Your task to perform on an android device: Open Android settings Image 0: 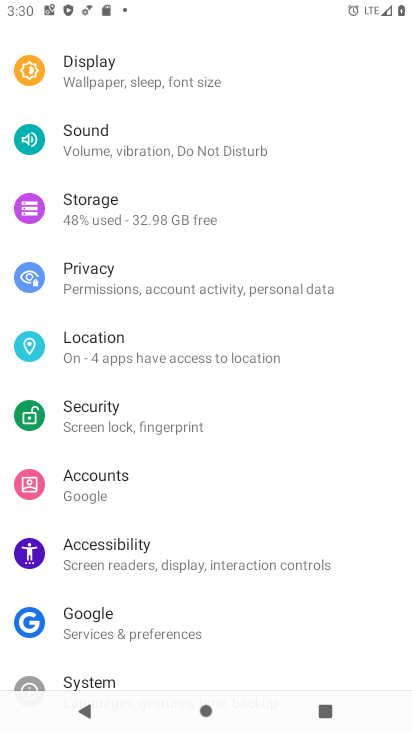
Step 0: drag from (142, 650) to (249, 2)
Your task to perform on an android device: Open Android settings Image 1: 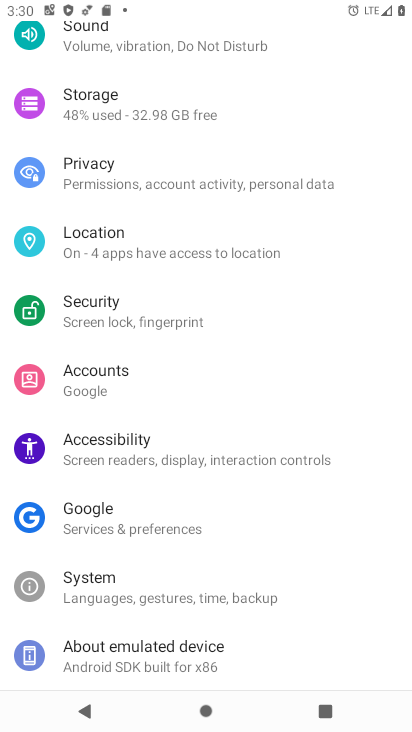
Step 1: click (114, 655)
Your task to perform on an android device: Open Android settings Image 2: 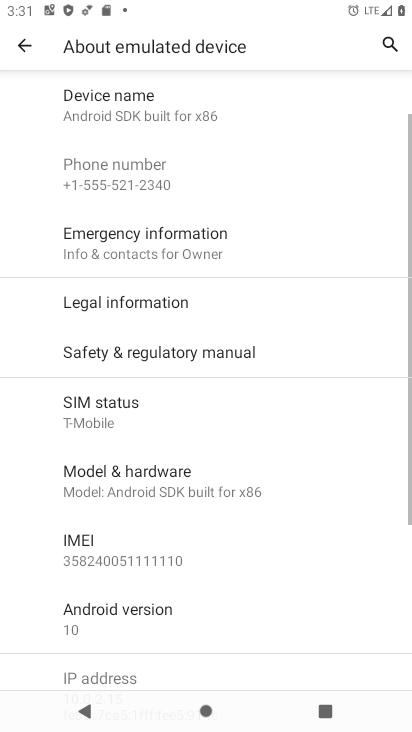
Step 2: click (107, 609)
Your task to perform on an android device: Open Android settings Image 3: 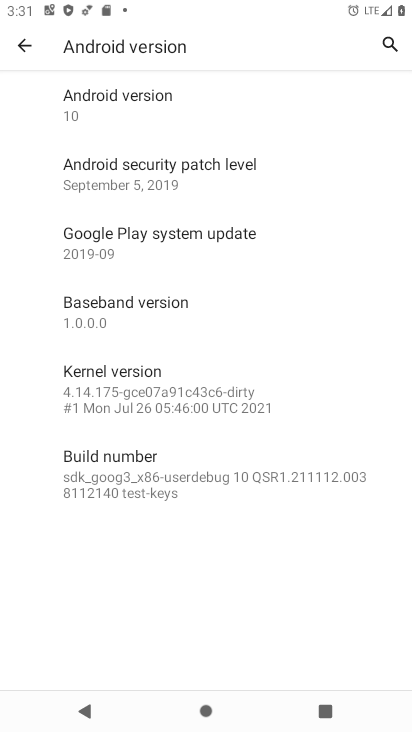
Step 3: task complete